Your task to perform on an android device: Search for pizza restaurants on Maps Image 0: 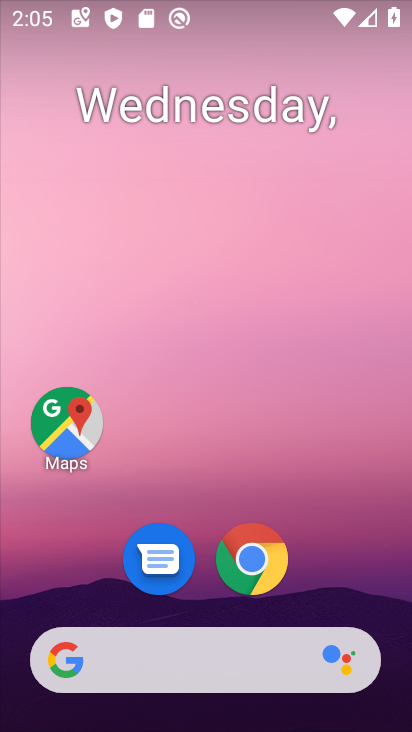
Step 0: click (251, 577)
Your task to perform on an android device: Search for pizza restaurants on Maps Image 1: 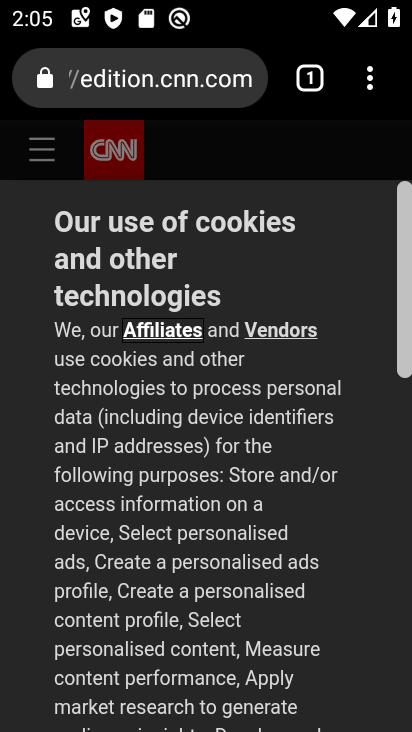
Step 1: press home button
Your task to perform on an android device: Search for pizza restaurants on Maps Image 2: 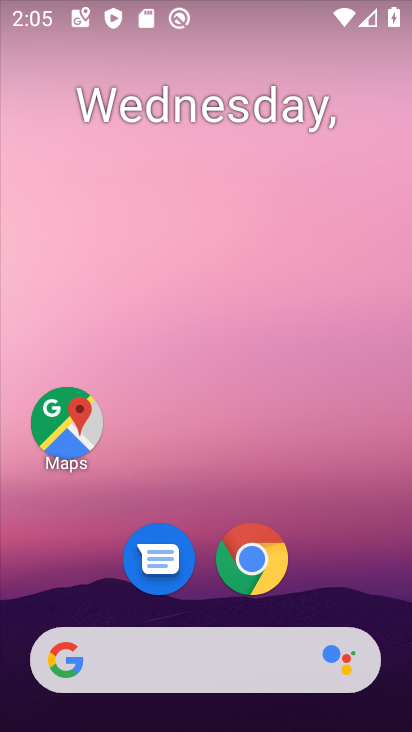
Step 2: click (59, 427)
Your task to perform on an android device: Search for pizza restaurants on Maps Image 3: 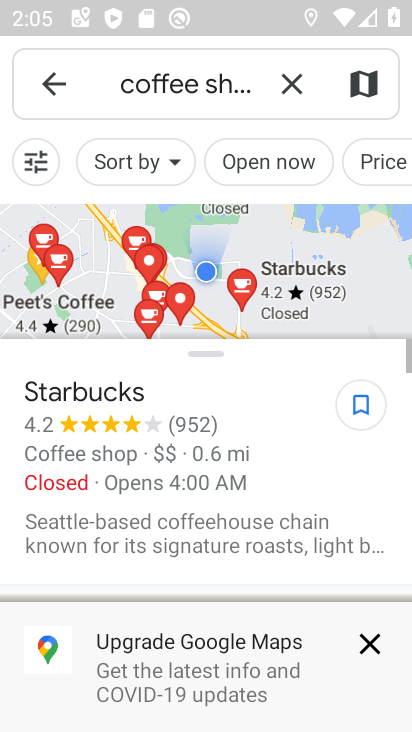
Step 3: click (291, 90)
Your task to perform on an android device: Search for pizza restaurants on Maps Image 4: 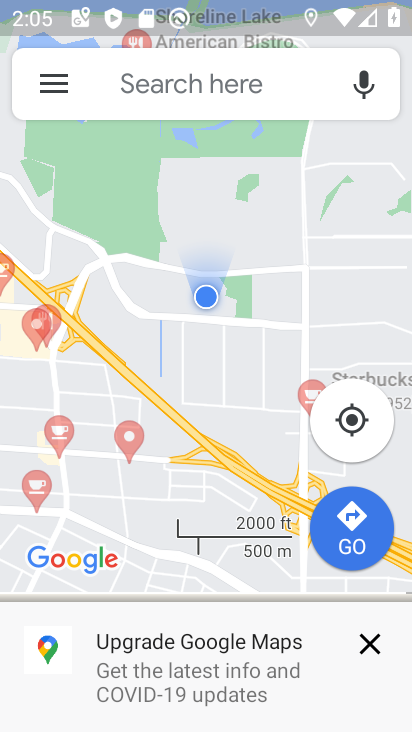
Step 4: click (209, 69)
Your task to perform on an android device: Search for pizza restaurants on Maps Image 5: 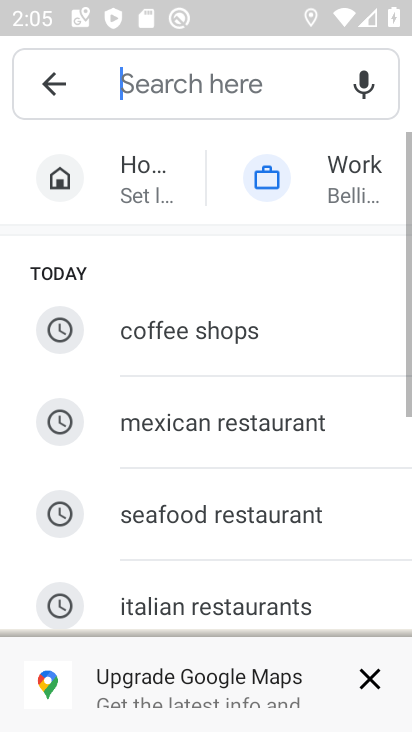
Step 5: click (209, 69)
Your task to perform on an android device: Search for pizza restaurants on Maps Image 6: 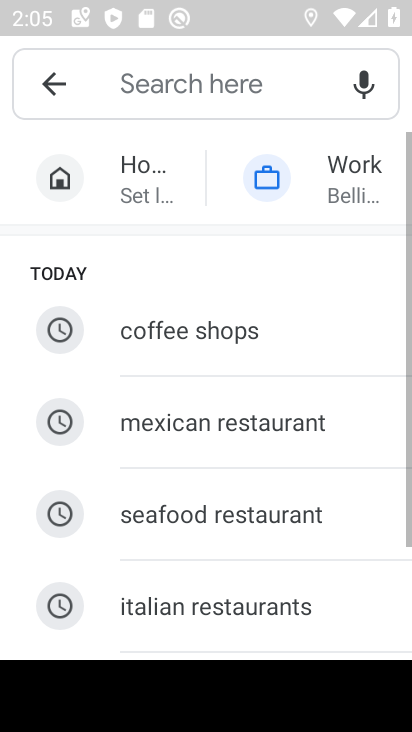
Step 6: click (209, 69)
Your task to perform on an android device: Search for pizza restaurants on Maps Image 7: 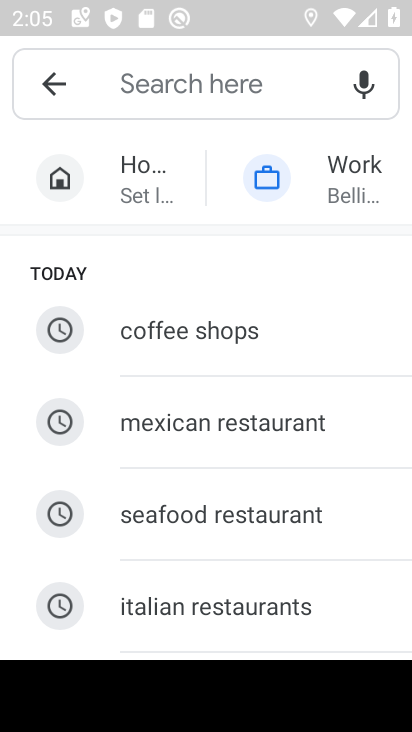
Step 7: type " pizza restaurants "
Your task to perform on an android device: Search for pizza restaurants on Maps Image 8: 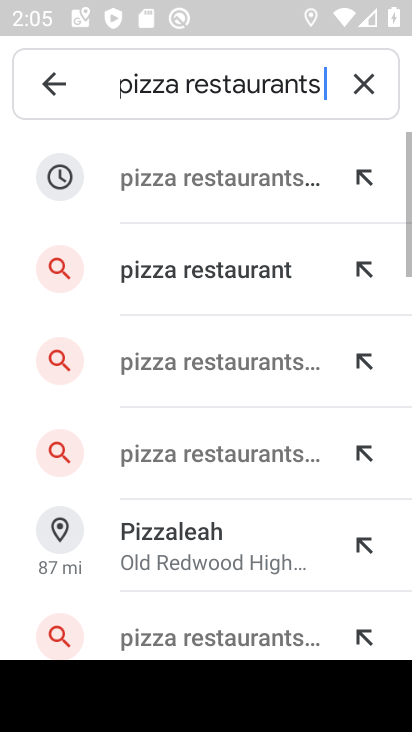
Step 8: click (320, 198)
Your task to perform on an android device: Search for pizza restaurants on Maps Image 9: 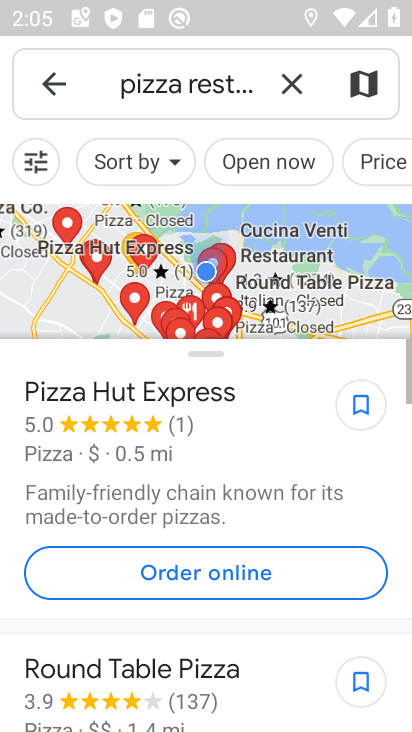
Step 9: task complete